Your task to perform on an android device: manage bookmarks in the chrome app Image 0: 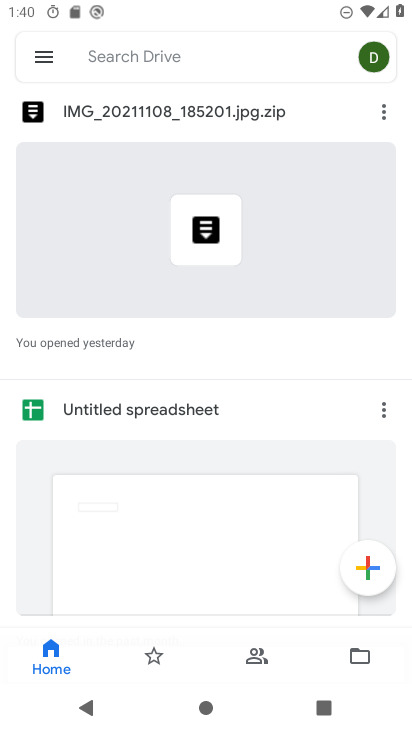
Step 0: press home button
Your task to perform on an android device: manage bookmarks in the chrome app Image 1: 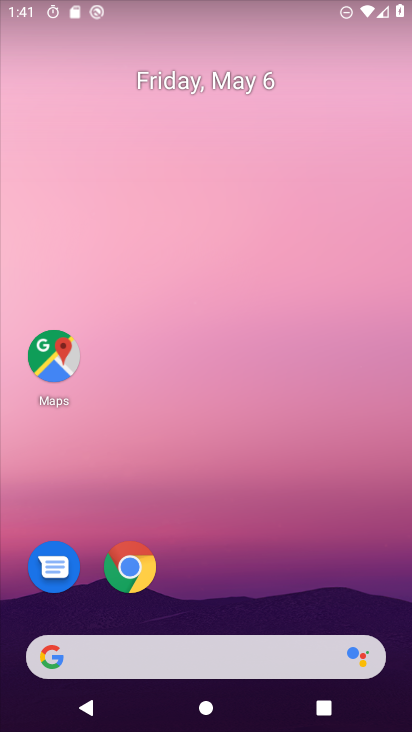
Step 1: click (138, 567)
Your task to perform on an android device: manage bookmarks in the chrome app Image 2: 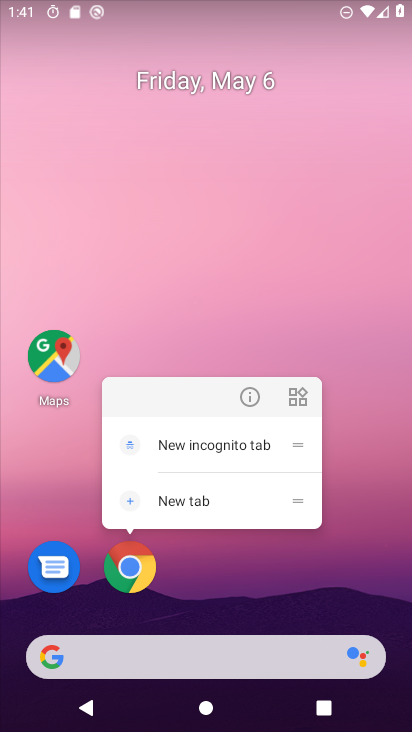
Step 2: click (131, 572)
Your task to perform on an android device: manage bookmarks in the chrome app Image 3: 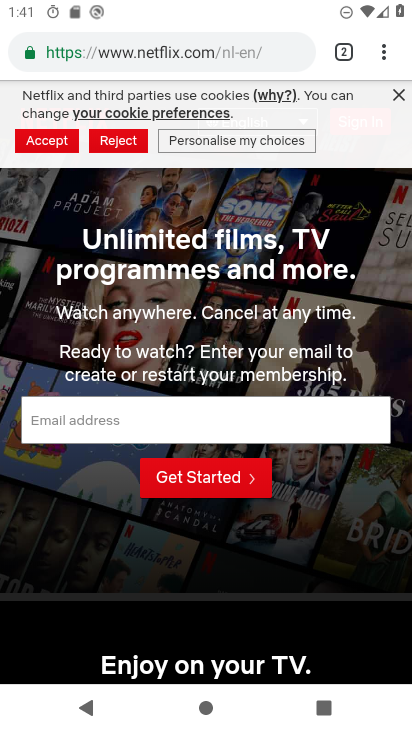
Step 3: click (384, 53)
Your task to perform on an android device: manage bookmarks in the chrome app Image 4: 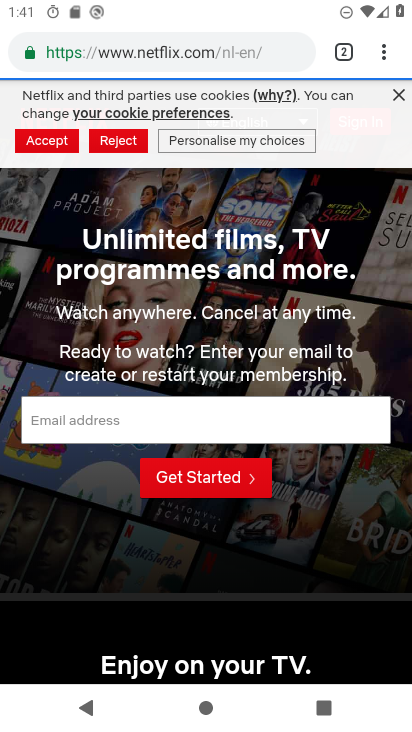
Step 4: click (383, 51)
Your task to perform on an android device: manage bookmarks in the chrome app Image 5: 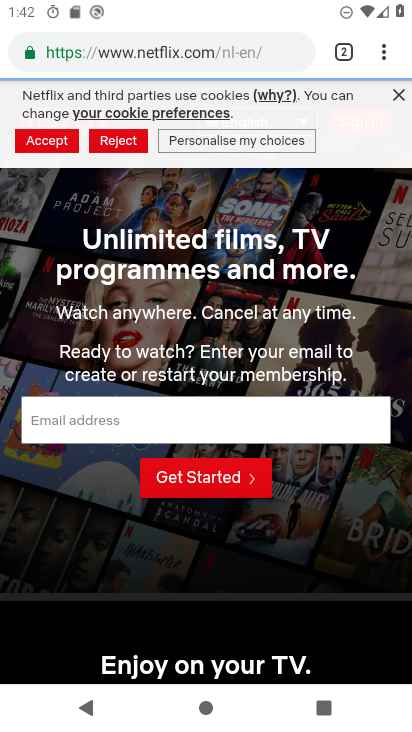
Step 5: drag from (387, 50) to (205, 197)
Your task to perform on an android device: manage bookmarks in the chrome app Image 6: 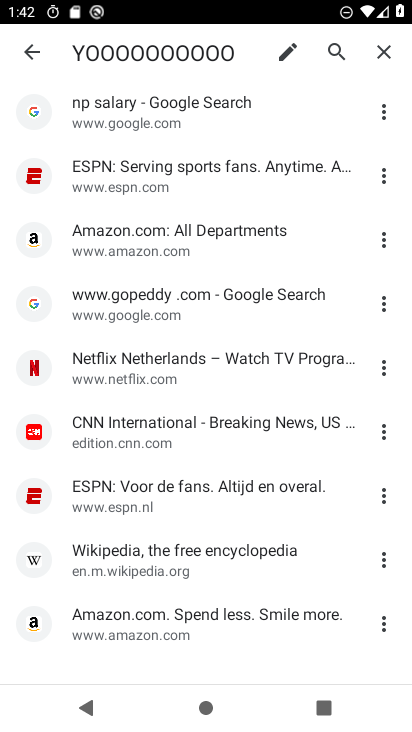
Step 6: click (384, 303)
Your task to perform on an android device: manage bookmarks in the chrome app Image 7: 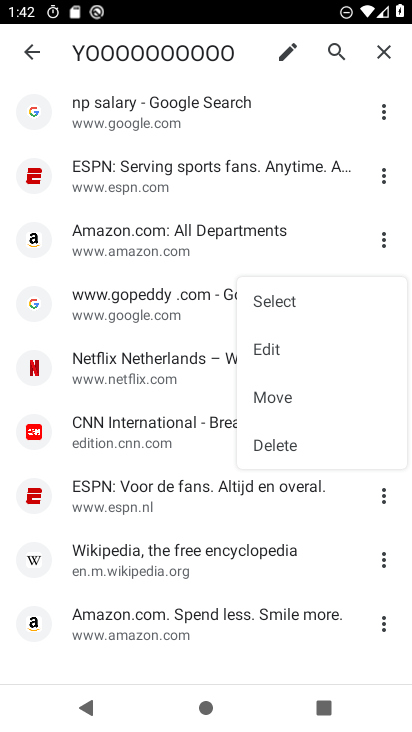
Step 7: click (258, 445)
Your task to perform on an android device: manage bookmarks in the chrome app Image 8: 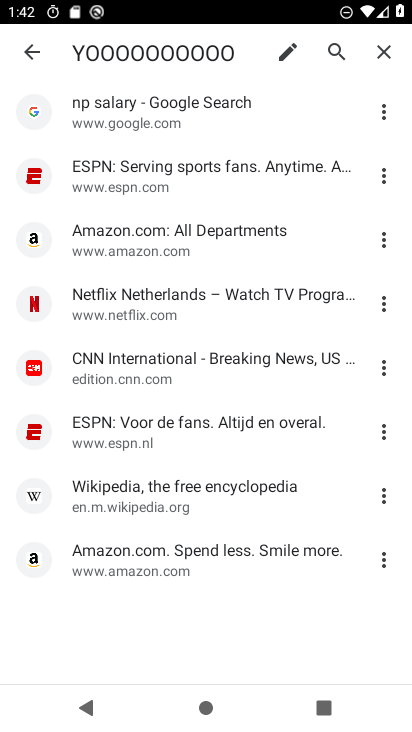
Step 8: task complete